Your task to perform on an android device: delete a single message in the gmail app Image 0: 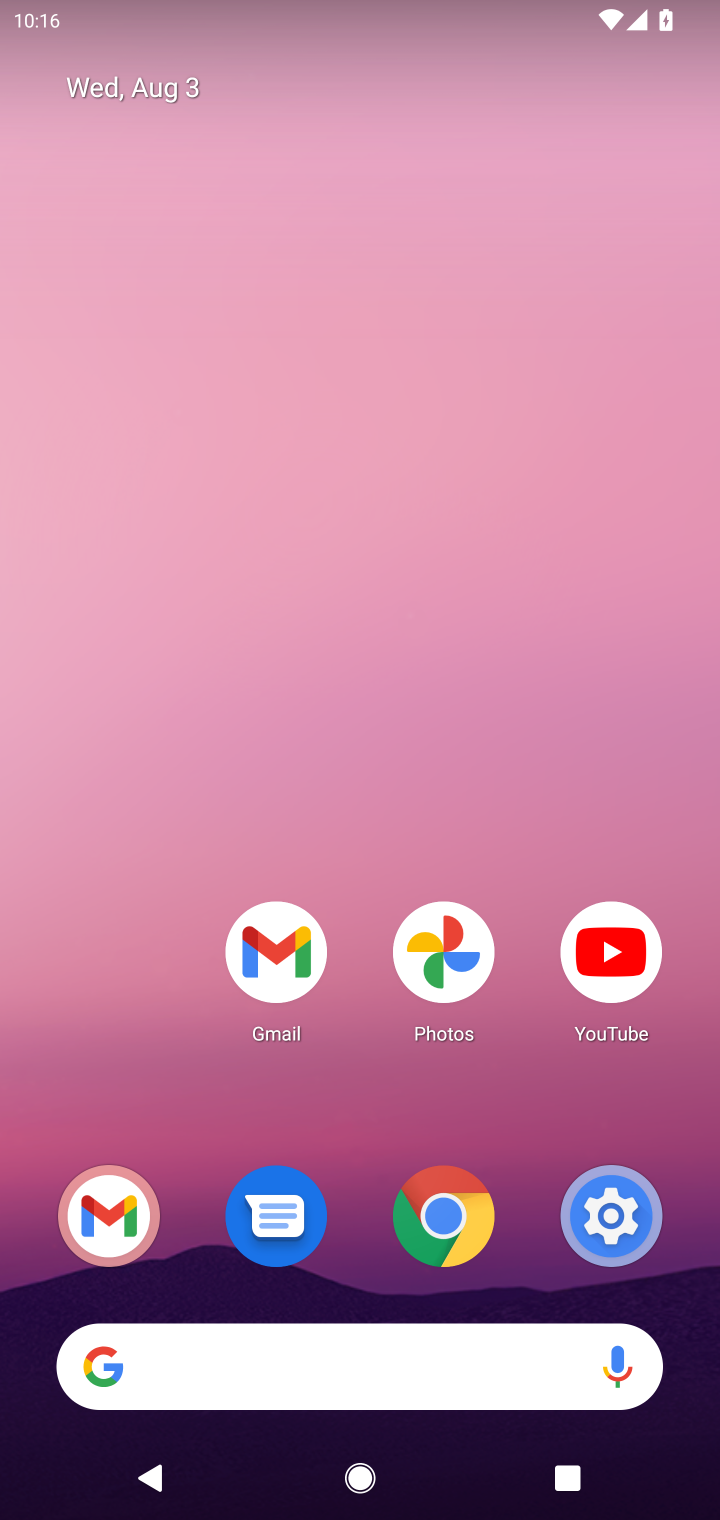
Step 0: drag from (149, 830) to (345, 2)
Your task to perform on an android device: delete a single message in the gmail app Image 1: 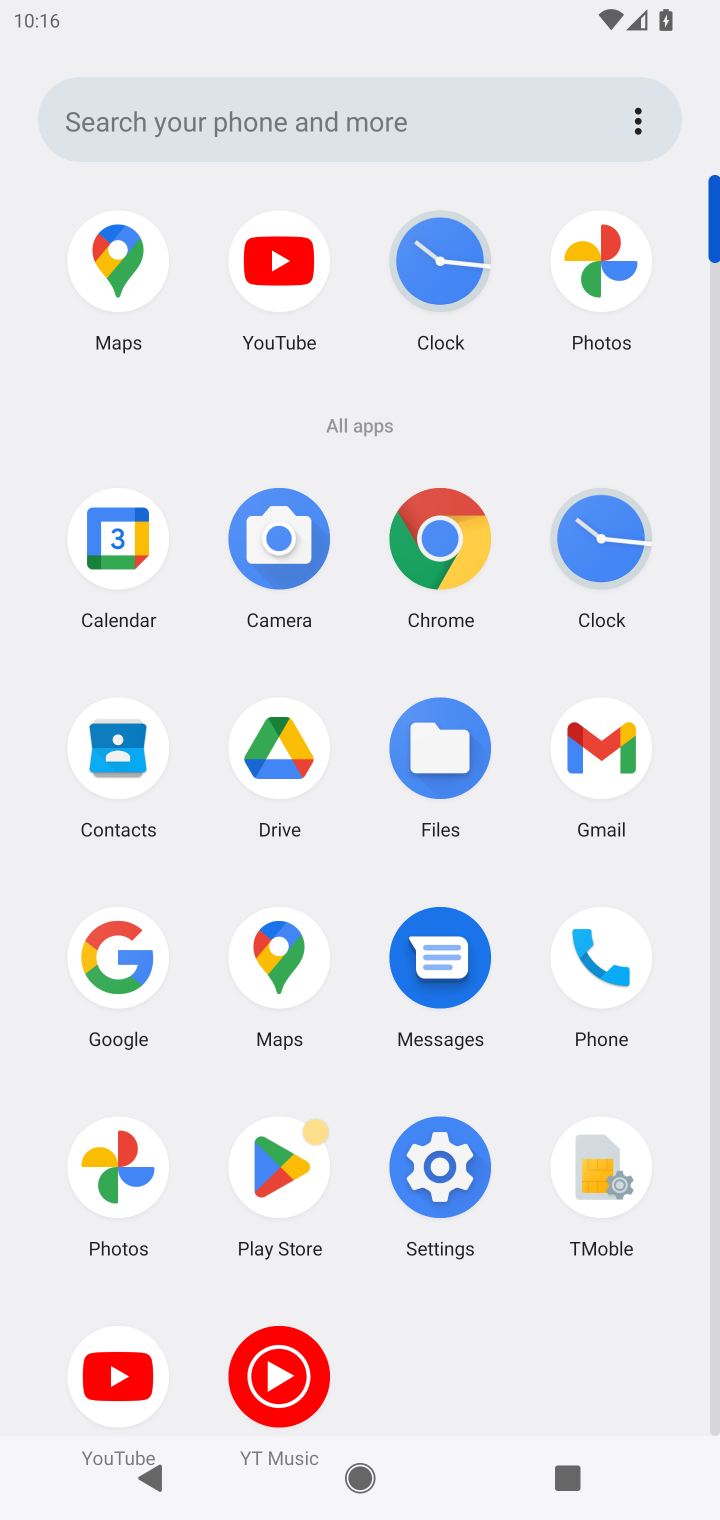
Step 1: click (578, 758)
Your task to perform on an android device: delete a single message in the gmail app Image 2: 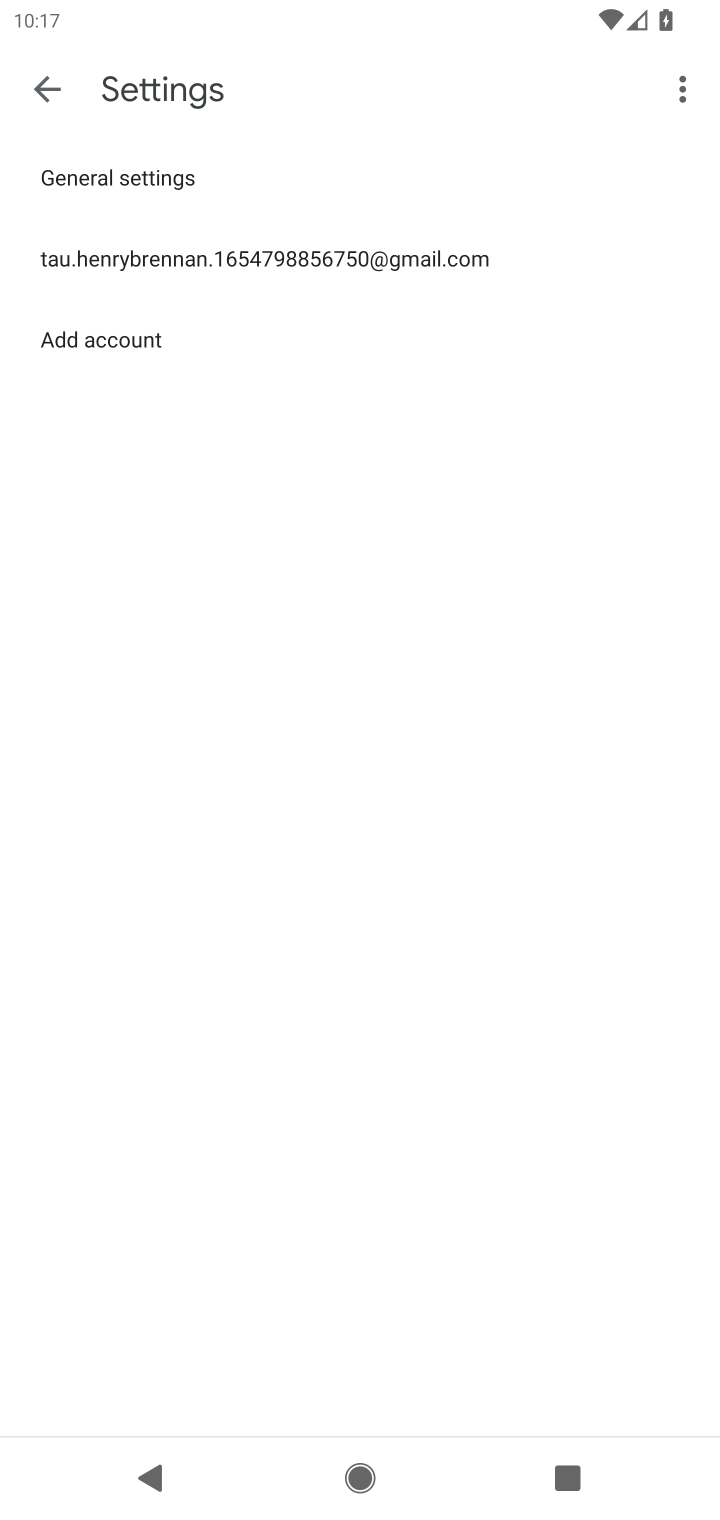
Step 2: press back button
Your task to perform on an android device: delete a single message in the gmail app Image 3: 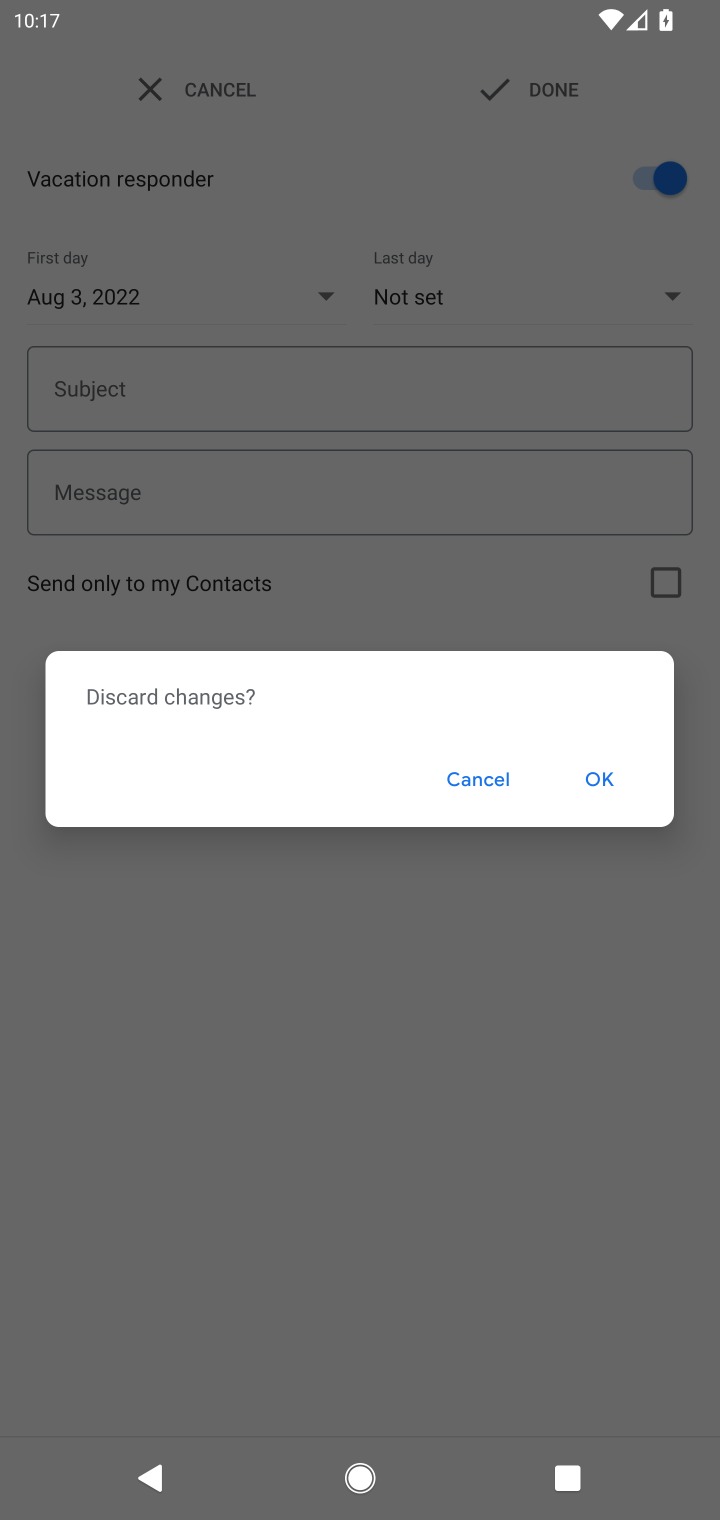
Step 3: press home button
Your task to perform on an android device: delete a single message in the gmail app Image 4: 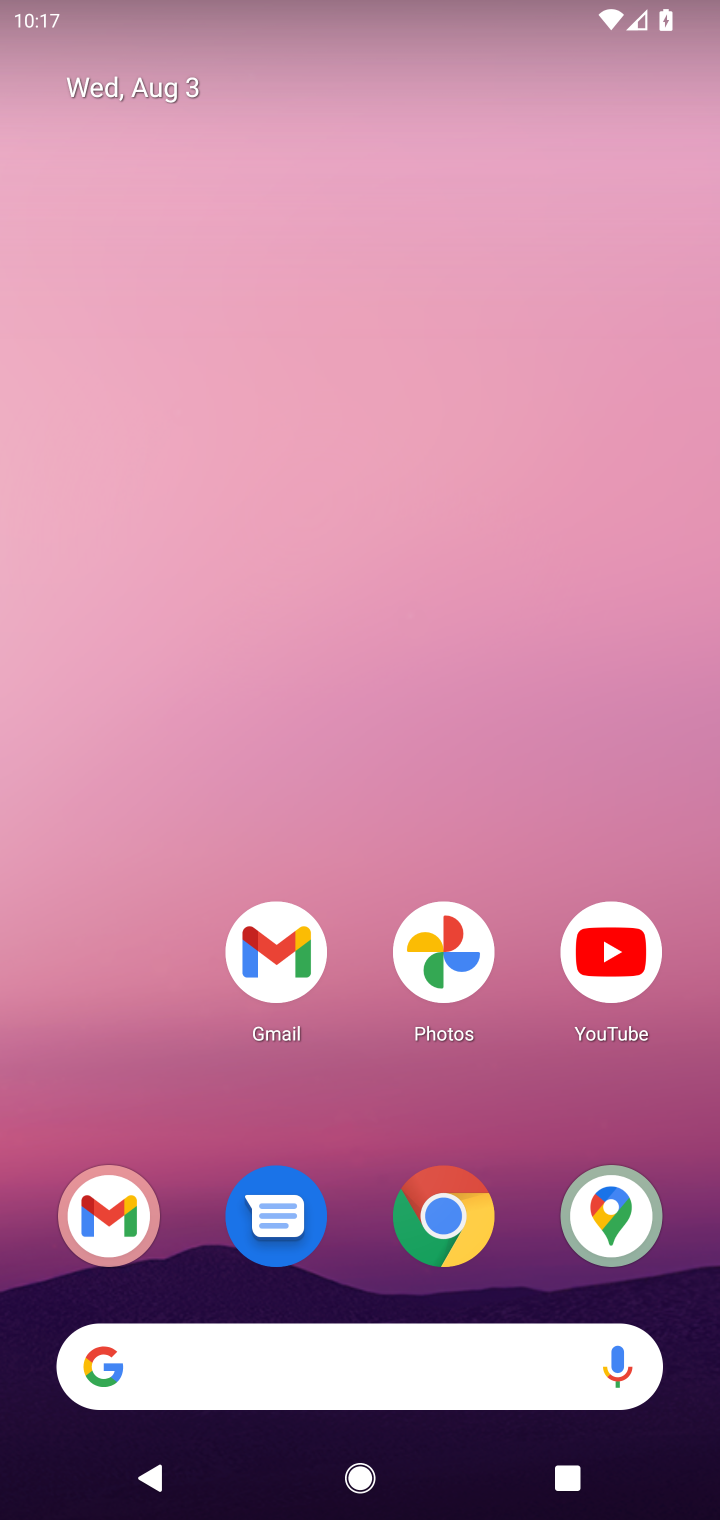
Step 4: click (282, 956)
Your task to perform on an android device: delete a single message in the gmail app Image 5: 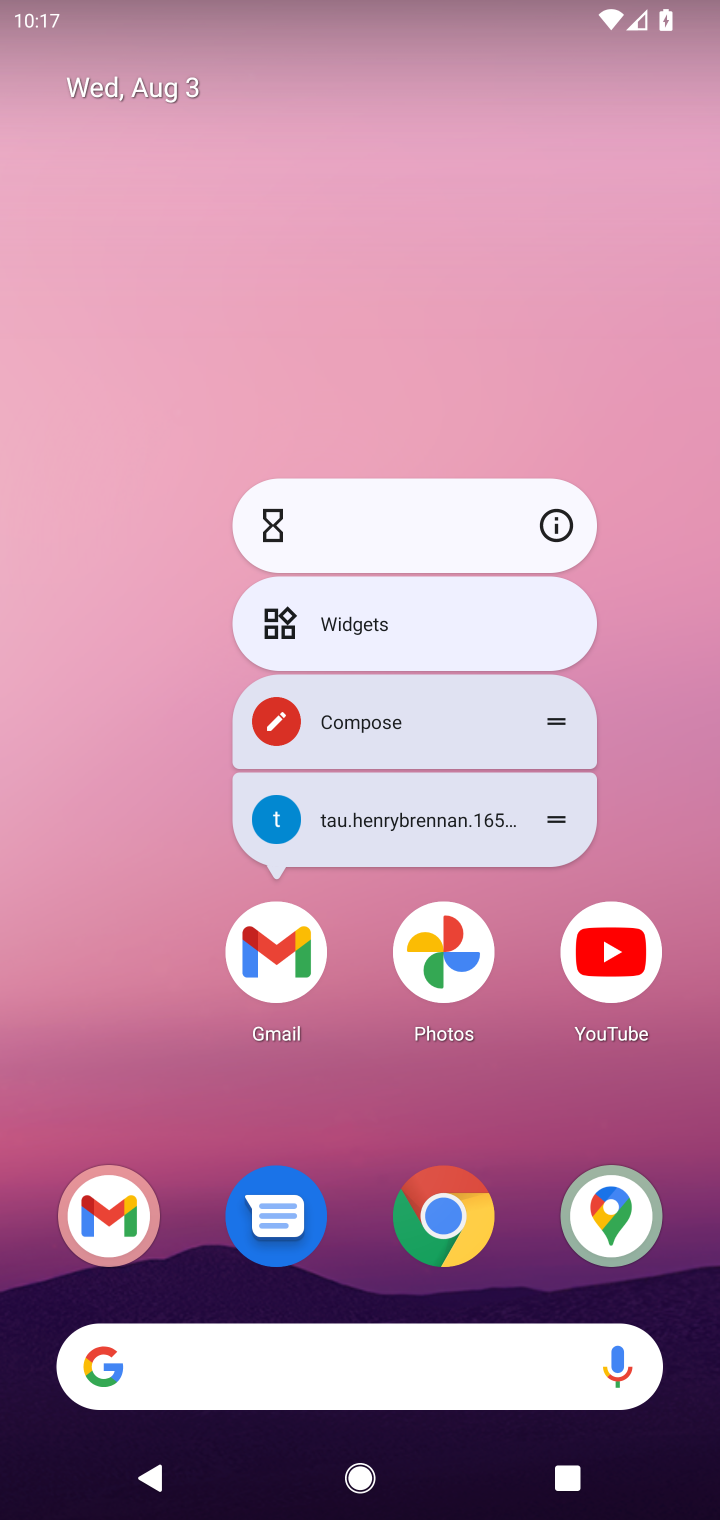
Step 5: click (282, 960)
Your task to perform on an android device: delete a single message in the gmail app Image 6: 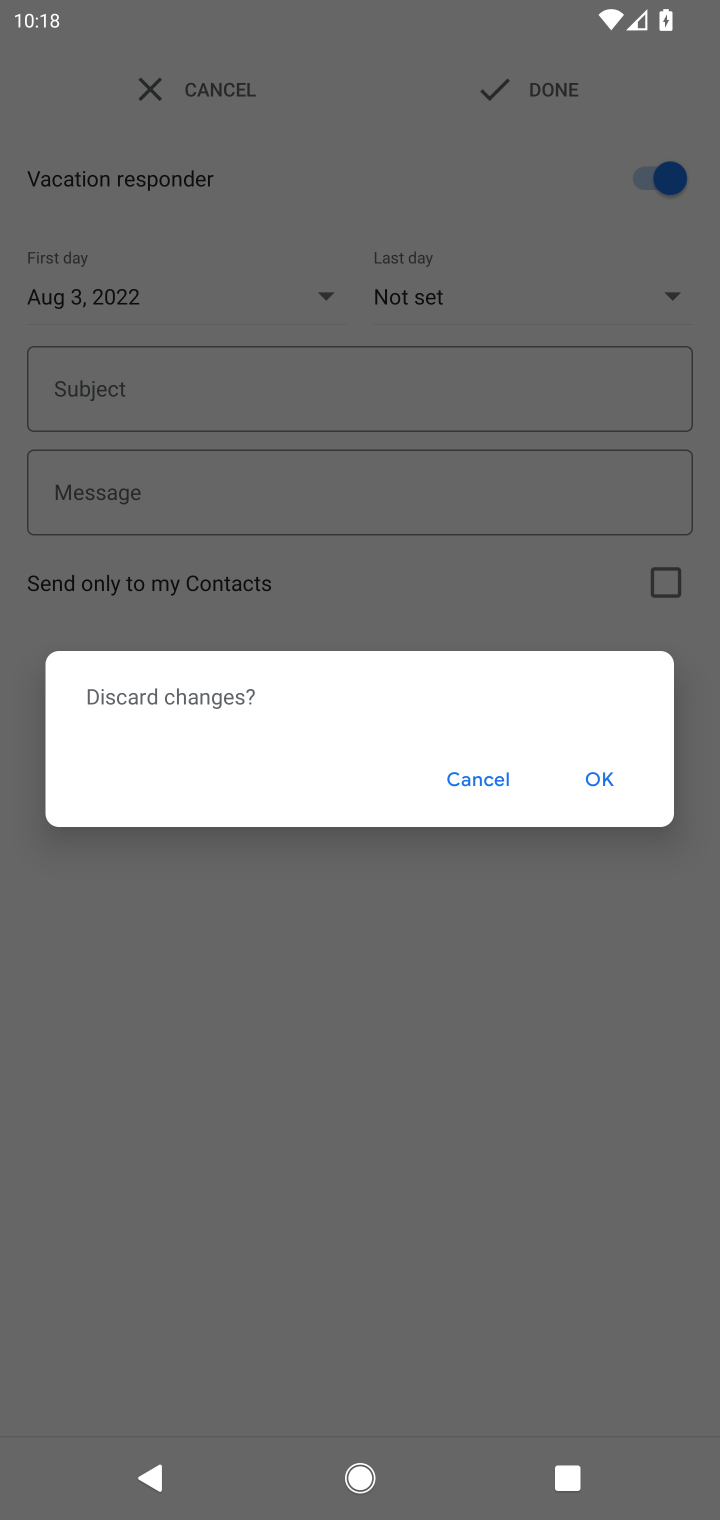
Step 6: click (509, 757)
Your task to perform on an android device: delete a single message in the gmail app Image 7: 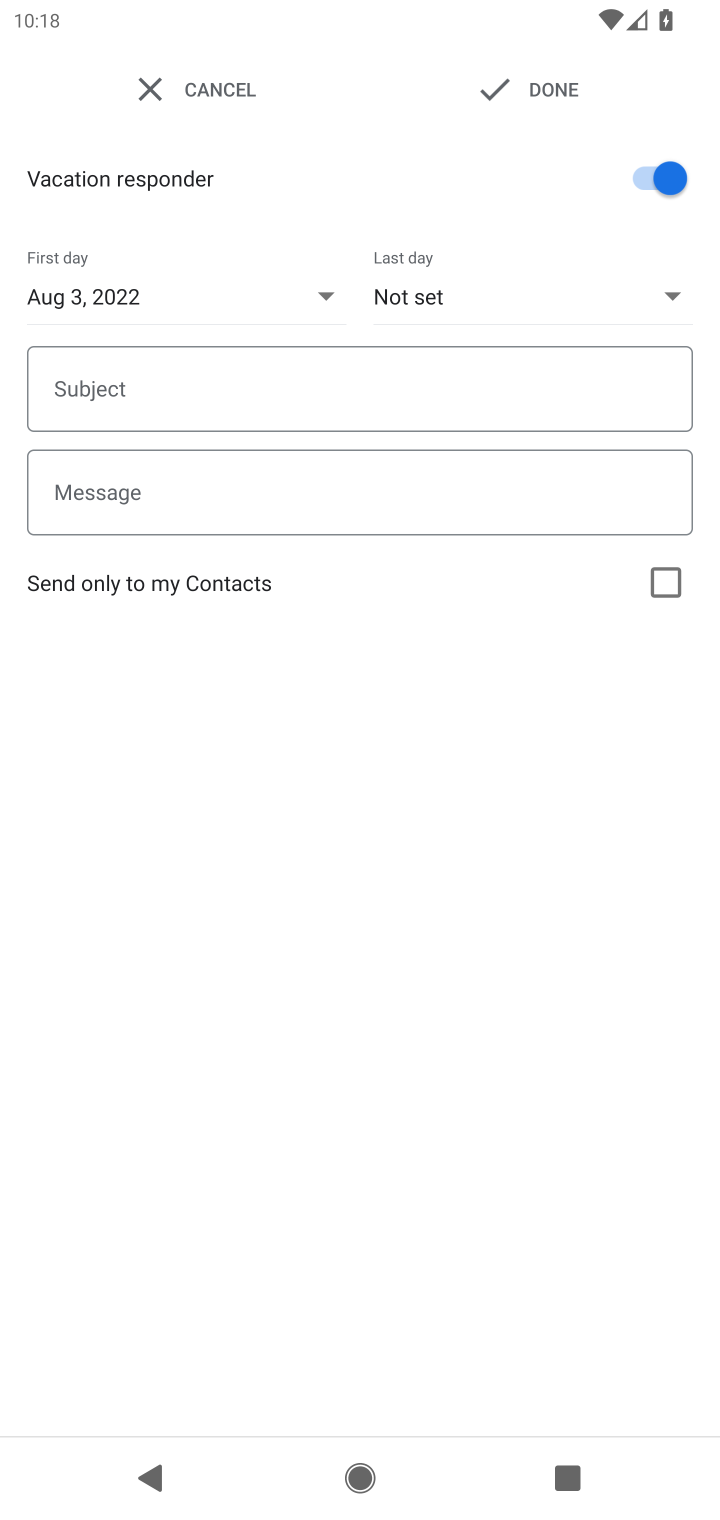
Step 7: click (196, 83)
Your task to perform on an android device: delete a single message in the gmail app Image 8: 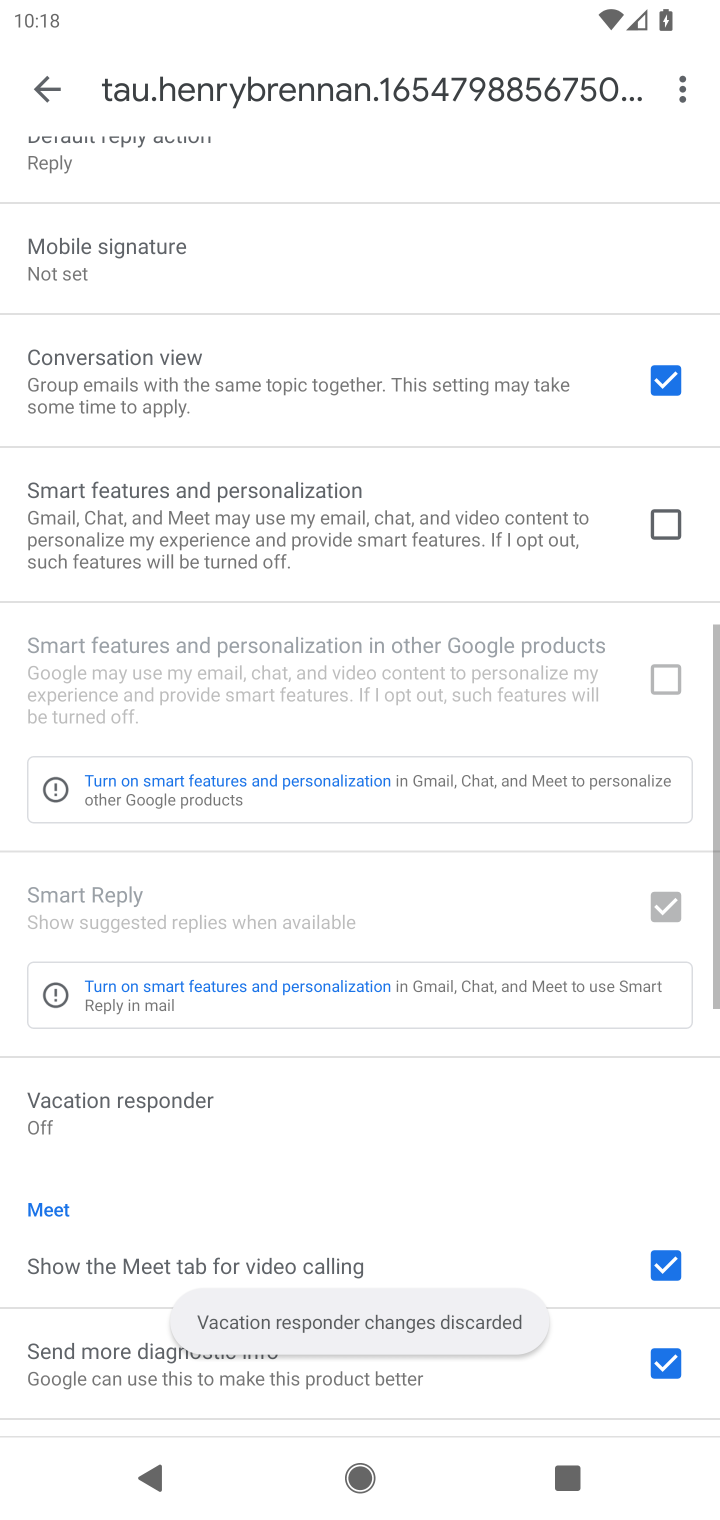
Step 8: click (57, 88)
Your task to perform on an android device: delete a single message in the gmail app Image 9: 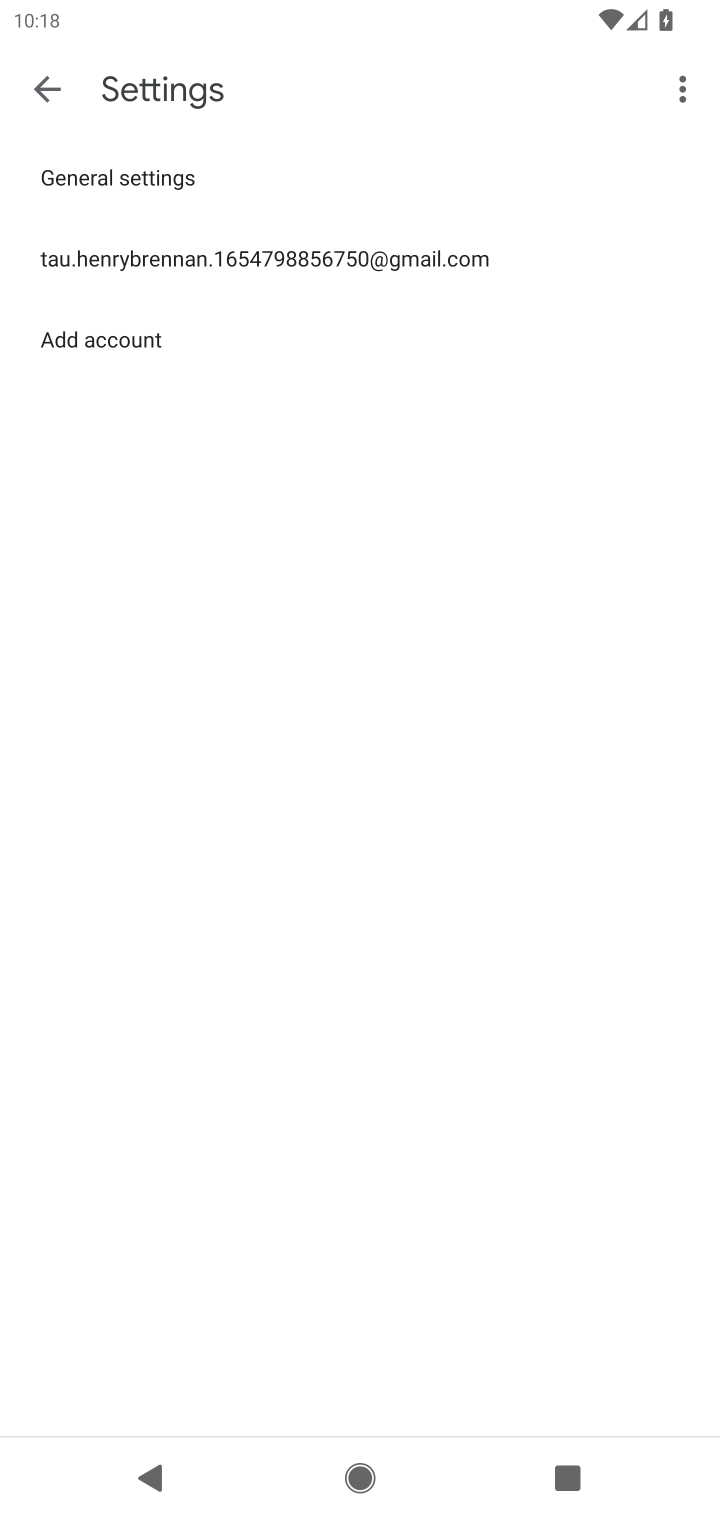
Step 9: click (67, 67)
Your task to perform on an android device: delete a single message in the gmail app Image 10: 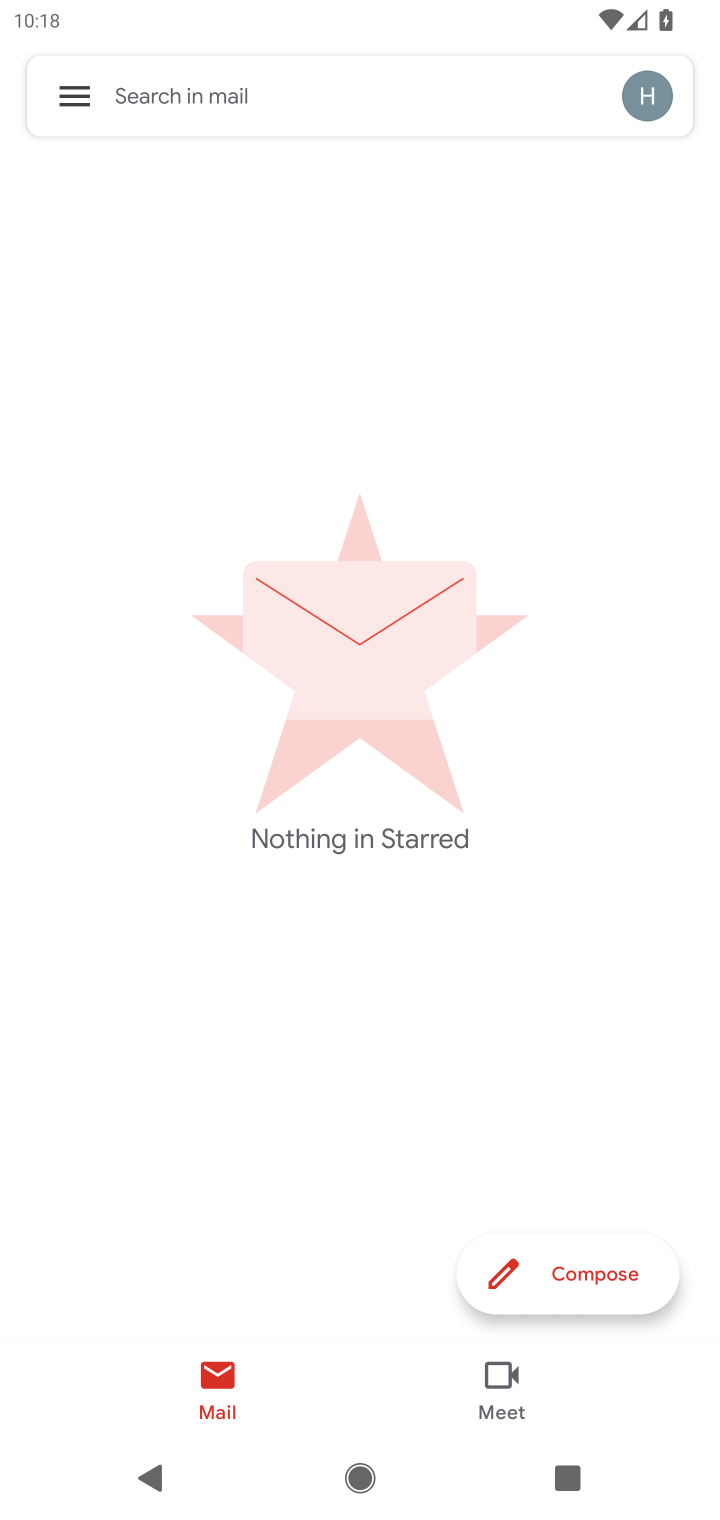
Step 10: click (87, 90)
Your task to perform on an android device: delete a single message in the gmail app Image 11: 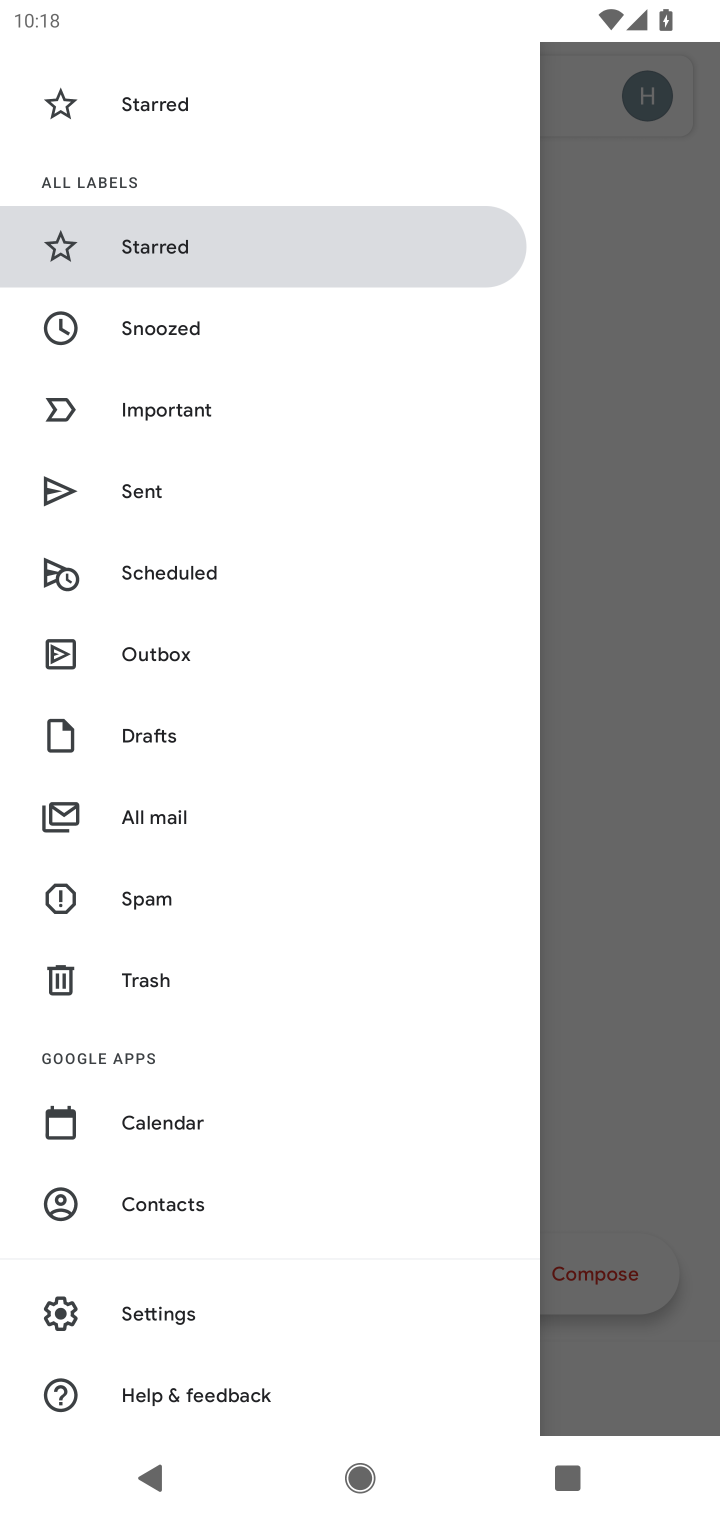
Step 11: click (165, 807)
Your task to perform on an android device: delete a single message in the gmail app Image 12: 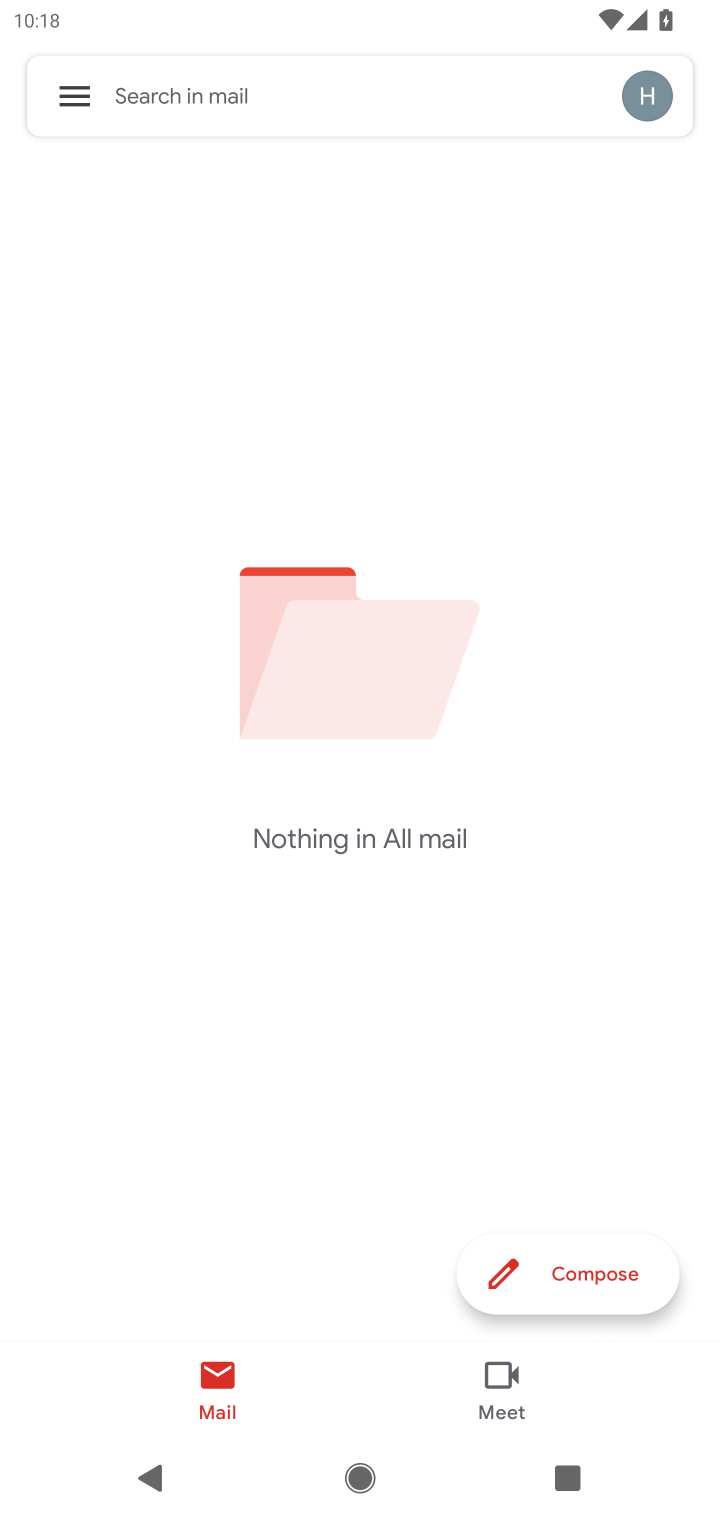
Step 12: task complete